Your task to perform on an android device: turn on wifi Image 0: 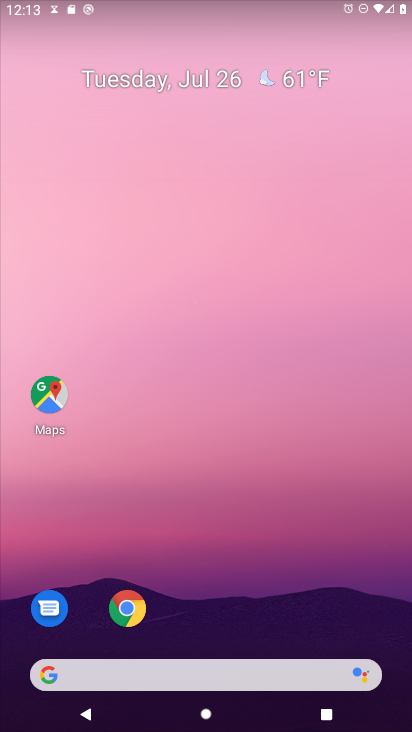
Step 0: drag from (233, 674) to (206, 149)
Your task to perform on an android device: turn on wifi Image 1: 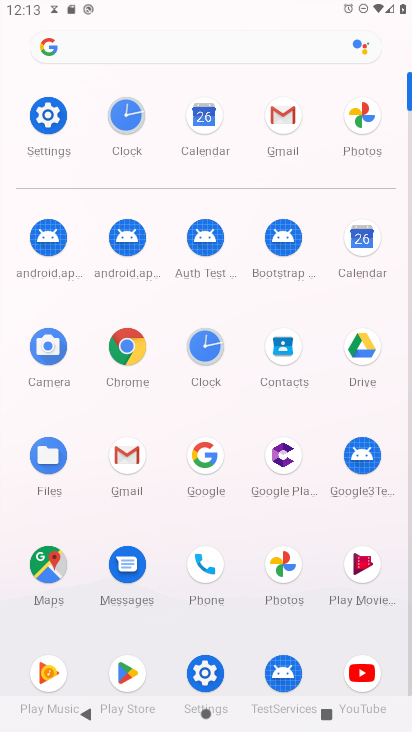
Step 1: click (47, 114)
Your task to perform on an android device: turn on wifi Image 2: 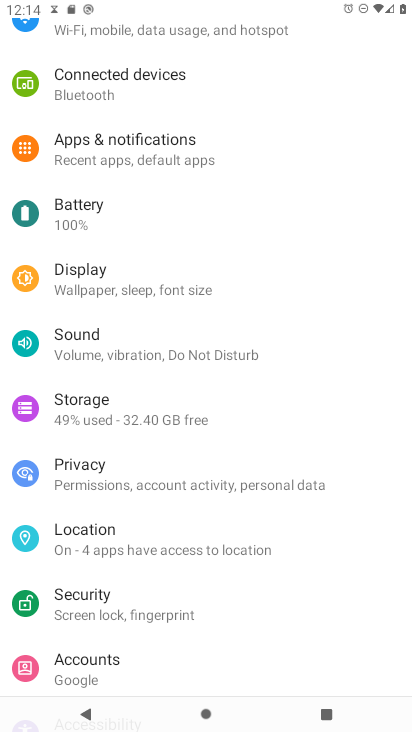
Step 2: drag from (129, 224) to (125, 402)
Your task to perform on an android device: turn on wifi Image 3: 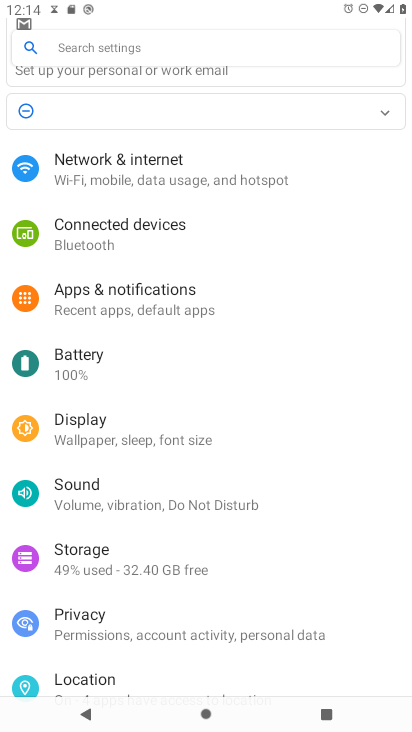
Step 3: click (144, 176)
Your task to perform on an android device: turn on wifi Image 4: 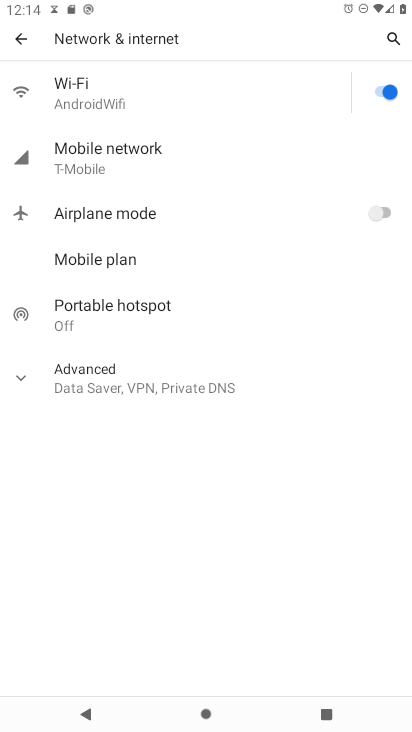
Step 4: task complete